Your task to perform on an android device: remove spam from my inbox in the gmail app Image 0: 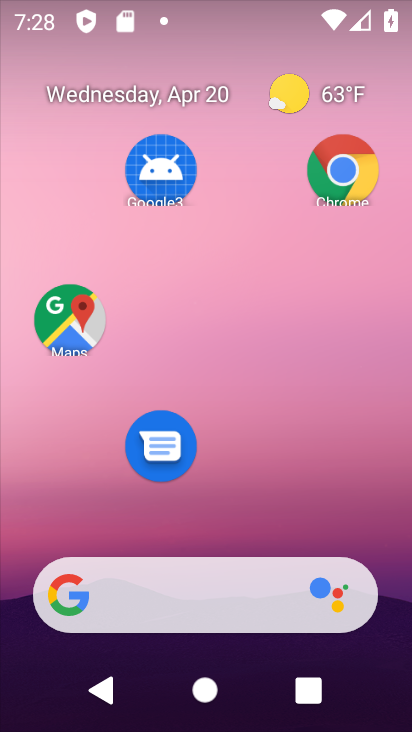
Step 0: drag from (257, 511) to (281, 68)
Your task to perform on an android device: remove spam from my inbox in the gmail app Image 1: 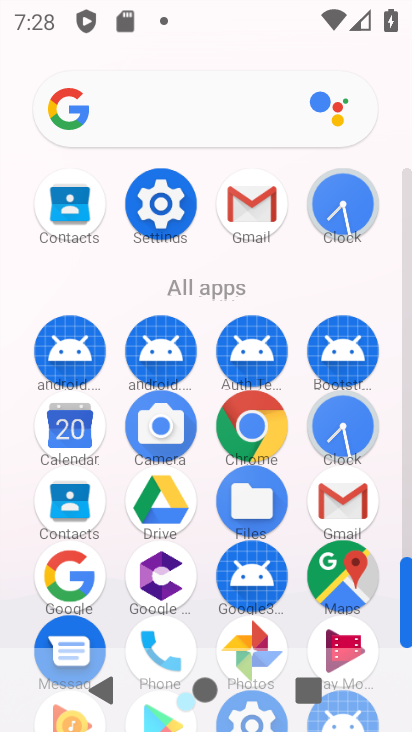
Step 1: click (252, 216)
Your task to perform on an android device: remove spam from my inbox in the gmail app Image 2: 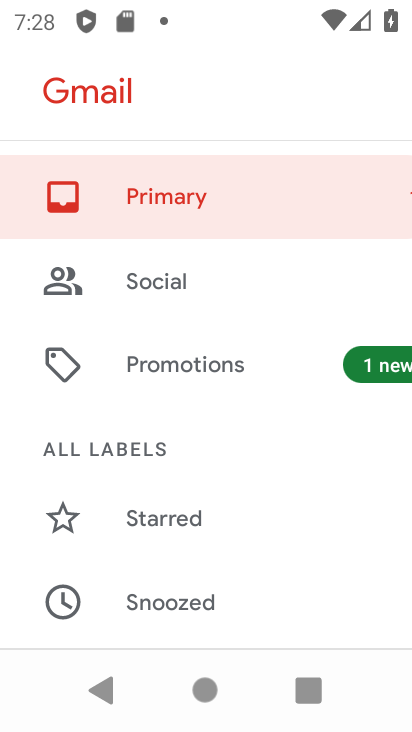
Step 2: drag from (291, 561) to (277, 279)
Your task to perform on an android device: remove spam from my inbox in the gmail app Image 3: 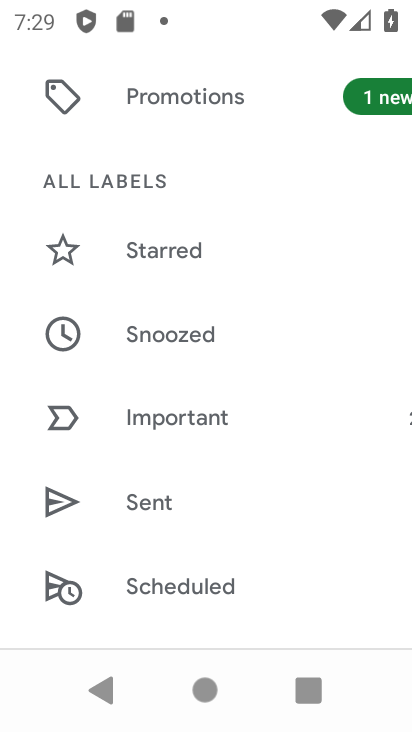
Step 3: drag from (255, 472) to (243, 180)
Your task to perform on an android device: remove spam from my inbox in the gmail app Image 4: 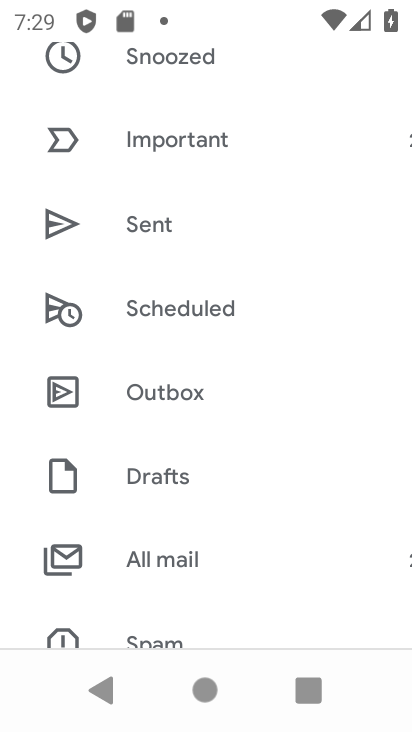
Step 4: drag from (231, 515) to (227, 86)
Your task to perform on an android device: remove spam from my inbox in the gmail app Image 5: 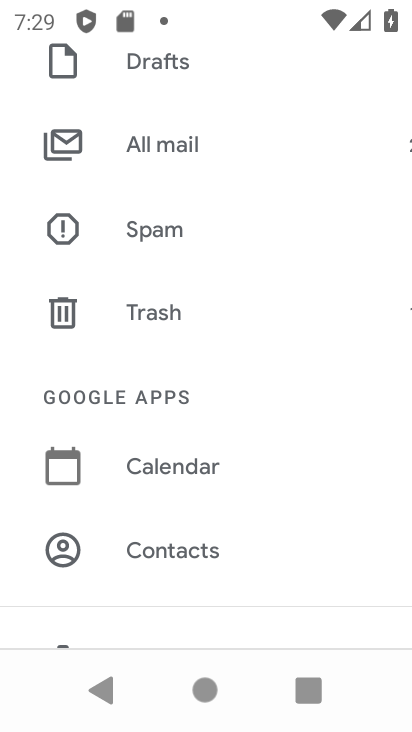
Step 5: click (146, 226)
Your task to perform on an android device: remove spam from my inbox in the gmail app Image 6: 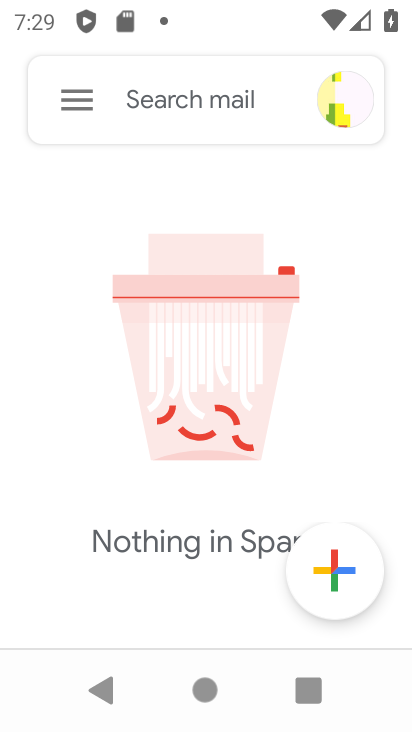
Step 6: task complete